Your task to perform on an android device: Open Reddit.com Image 0: 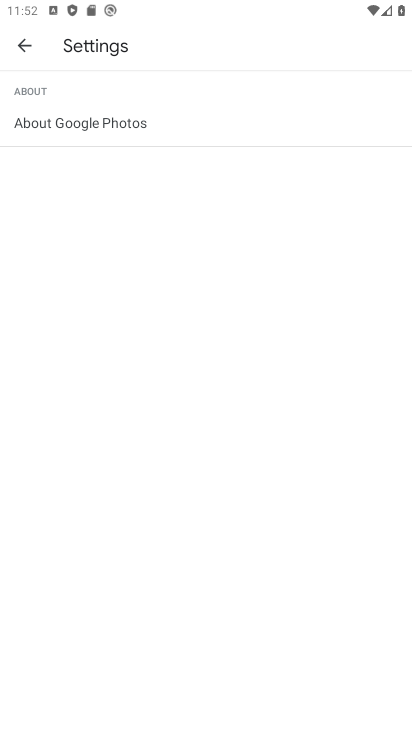
Step 0: press home button
Your task to perform on an android device: Open Reddit.com Image 1: 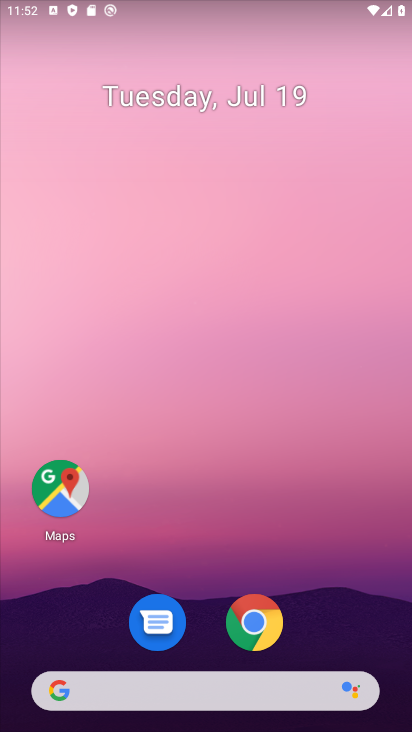
Step 1: click (260, 610)
Your task to perform on an android device: Open Reddit.com Image 2: 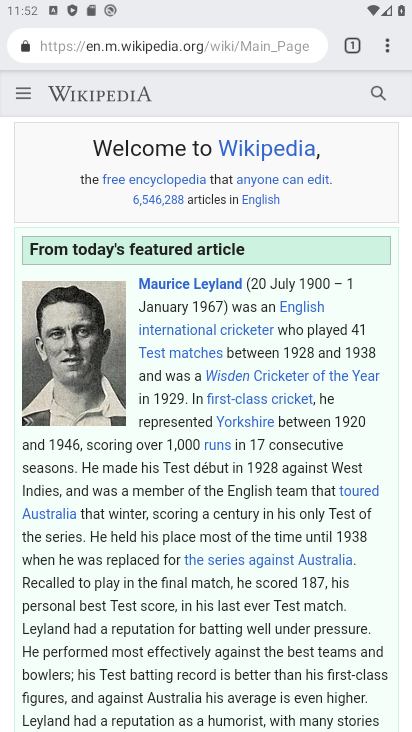
Step 2: click (350, 39)
Your task to perform on an android device: Open Reddit.com Image 3: 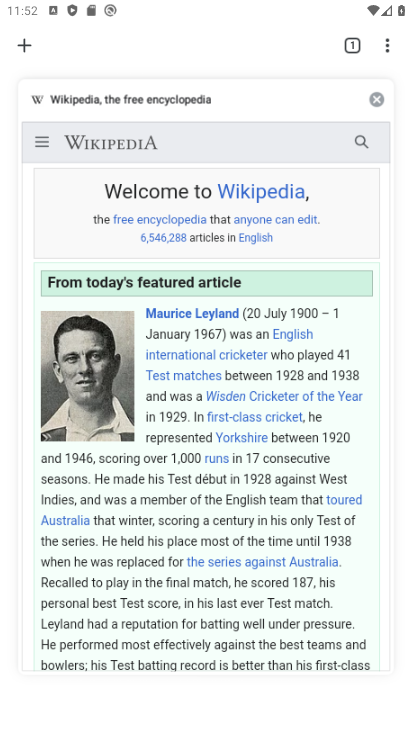
Step 3: click (30, 52)
Your task to perform on an android device: Open Reddit.com Image 4: 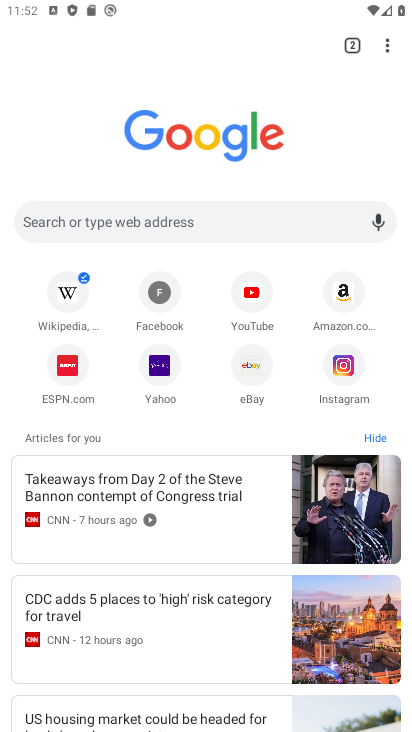
Step 4: click (176, 205)
Your task to perform on an android device: Open Reddit.com Image 5: 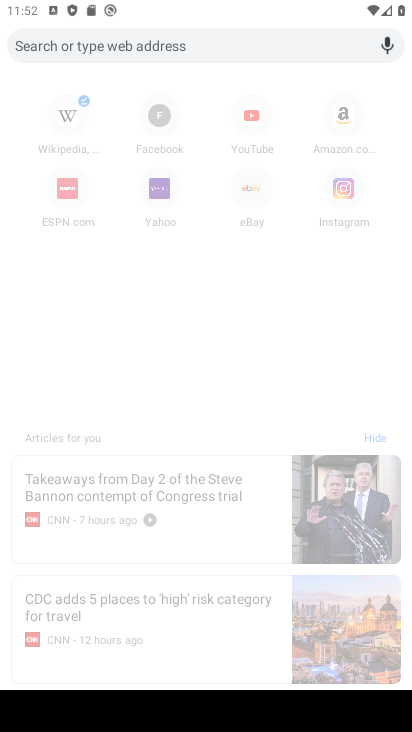
Step 5: type "reddit"
Your task to perform on an android device: Open Reddit.com Image 6: 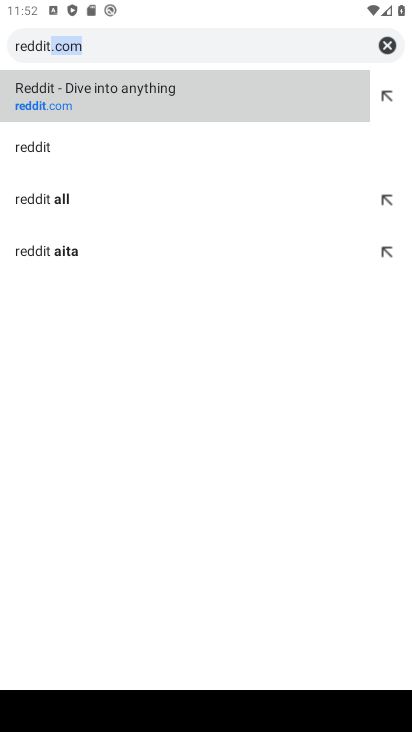
Step 6: click (161, 106)
Your task to perform on an android device: Open Reddit.com Image 7: 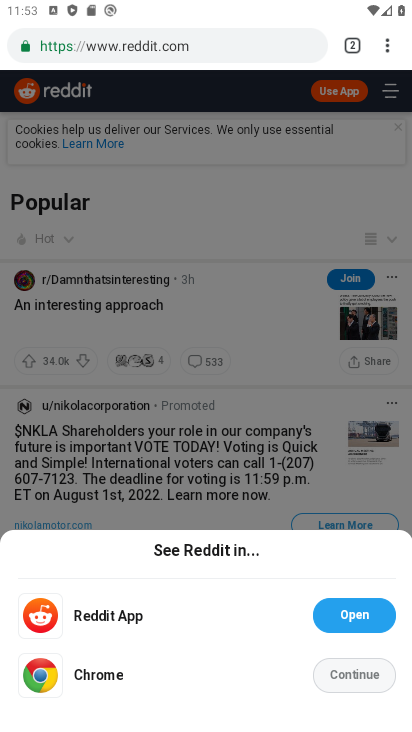
Step 7: task complete